Your task to perform on an android device: open app "Adobe Express: Graphic Design" Image 0: 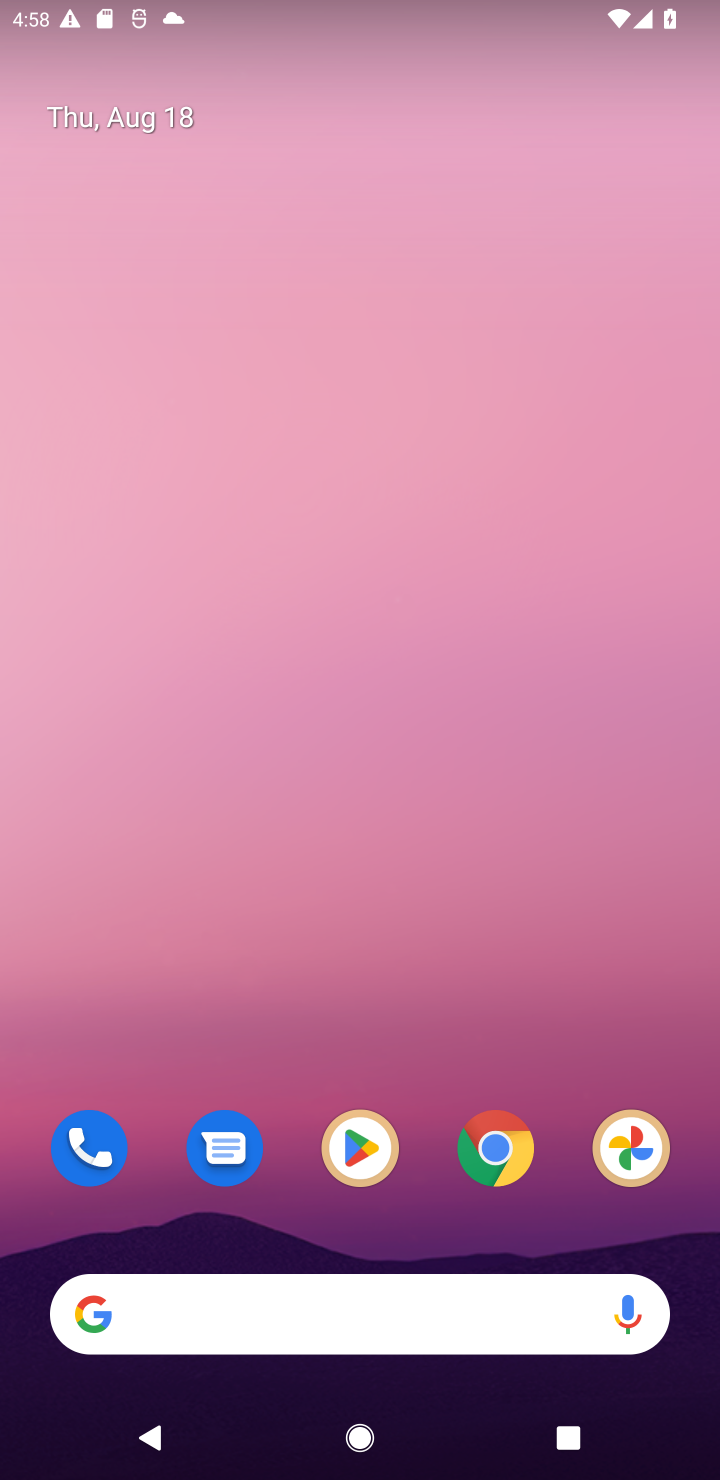
Step 0: drag from (494, 1164) to (394, 23)
Your task to perform on an android device: open app "Adobe Express: Graphic Design" Image 1: 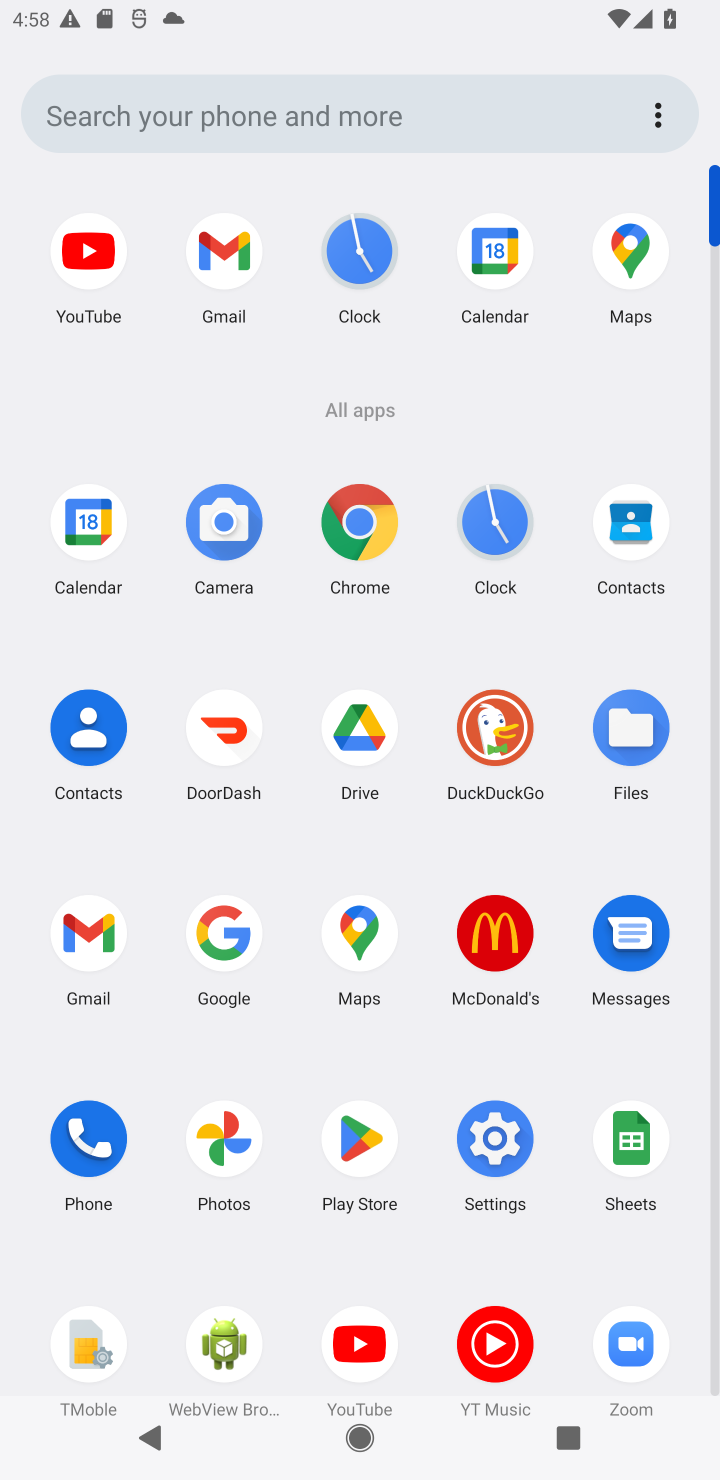
Step 1: click (370, 1145)
Your task to perform on an android device: open app "Adobe Express: Graphic Design" Image 2: 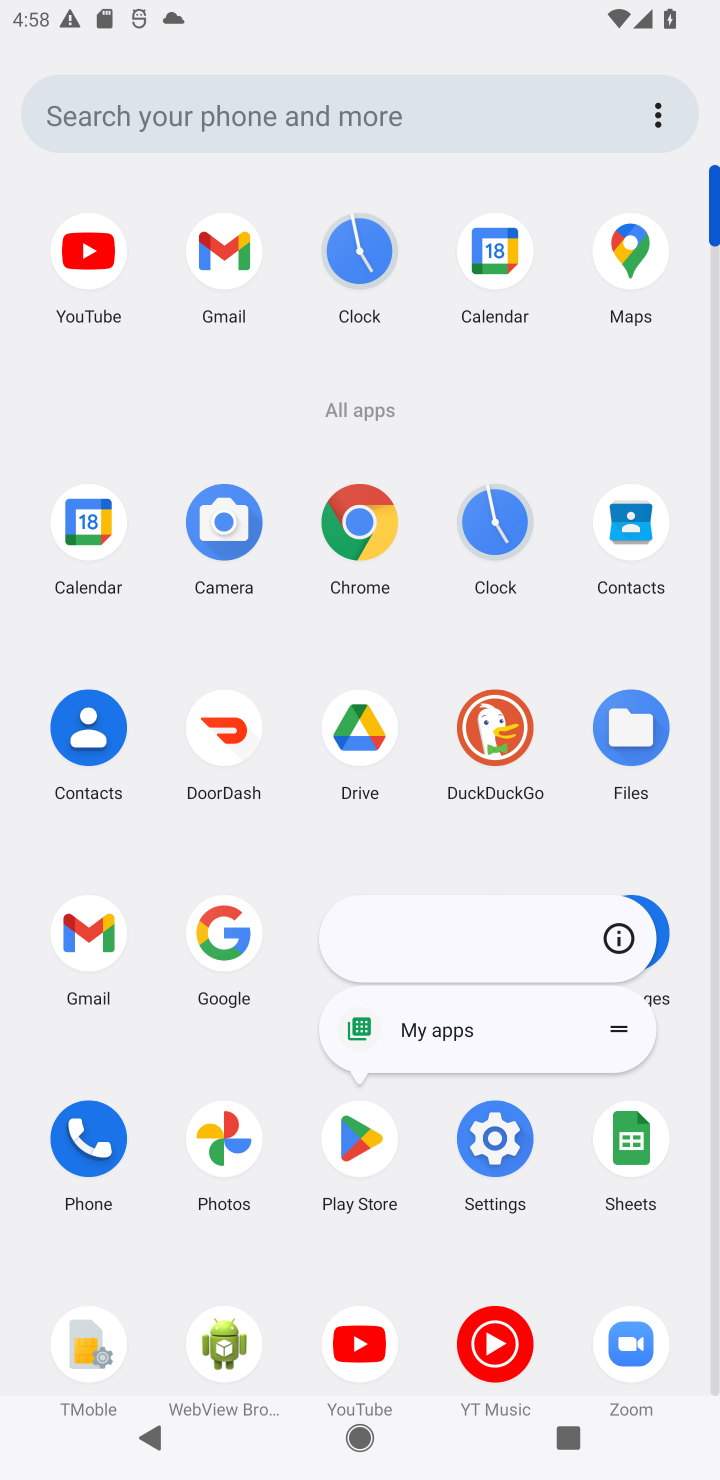
Step 2: click (373, 1136)
Your task to perform on an android device: open app "Adobe Express: Graphic Design" Image 3: 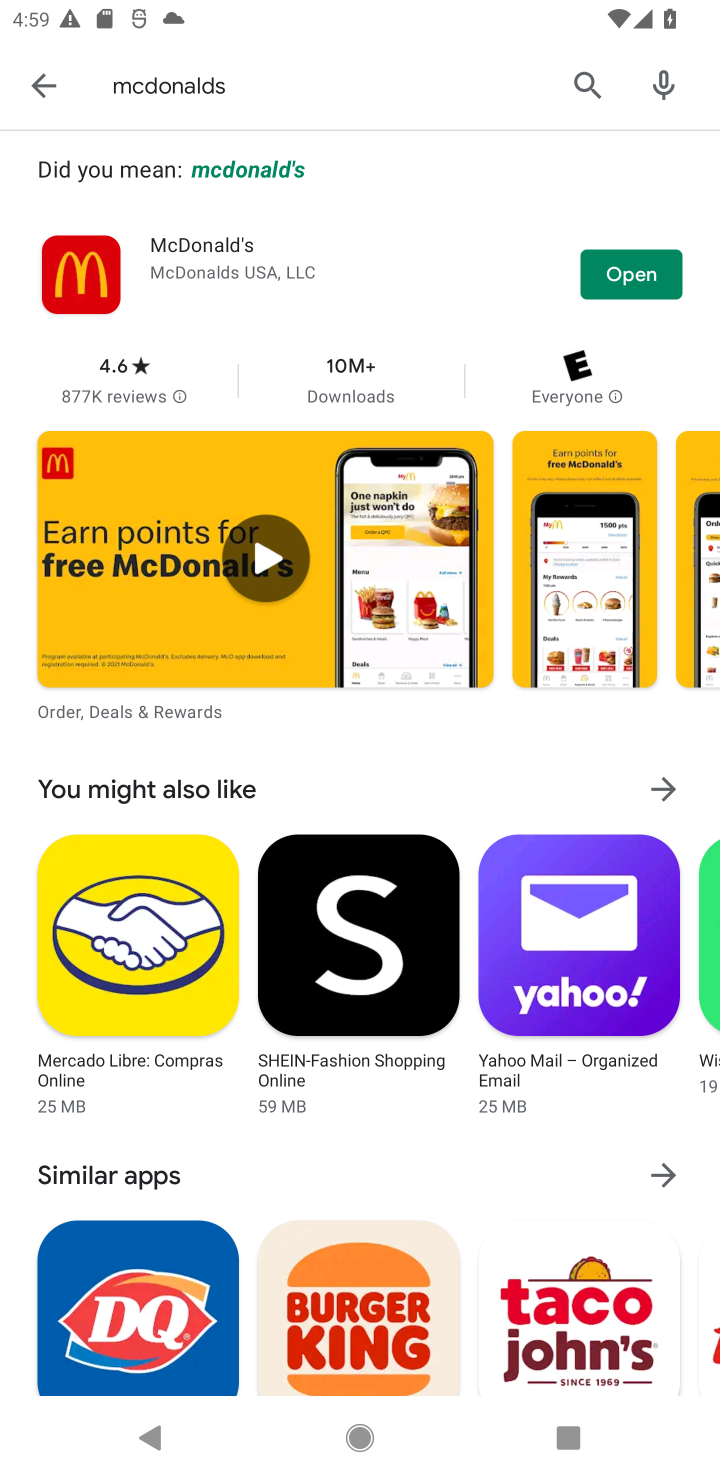
Step 3: click (53, 81)
Your task to perform on an android device: open app "Adobe Express: Graphic Design" Image 4: 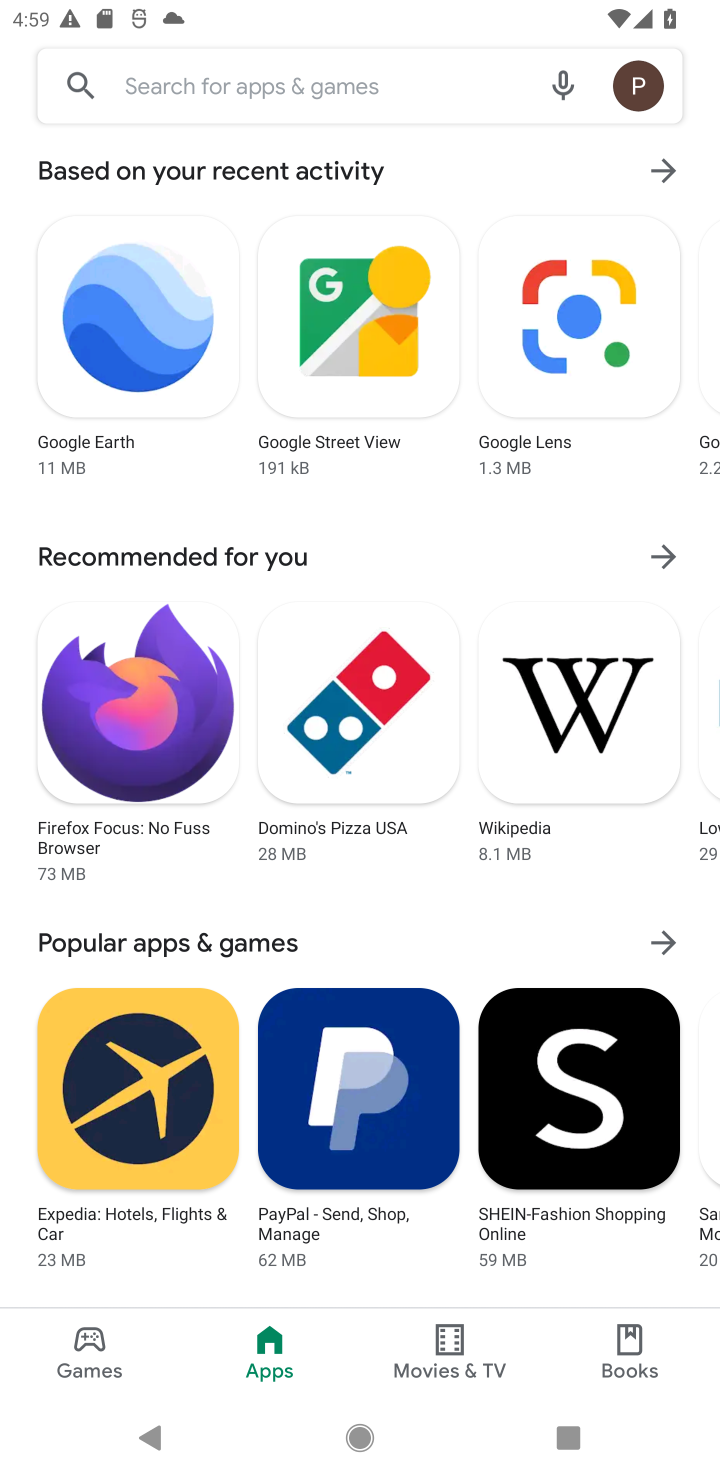
Step 4: click (254, 79)
Your task to perform on an android device: open app "Adobe Express: Graphic Design" Image 5: 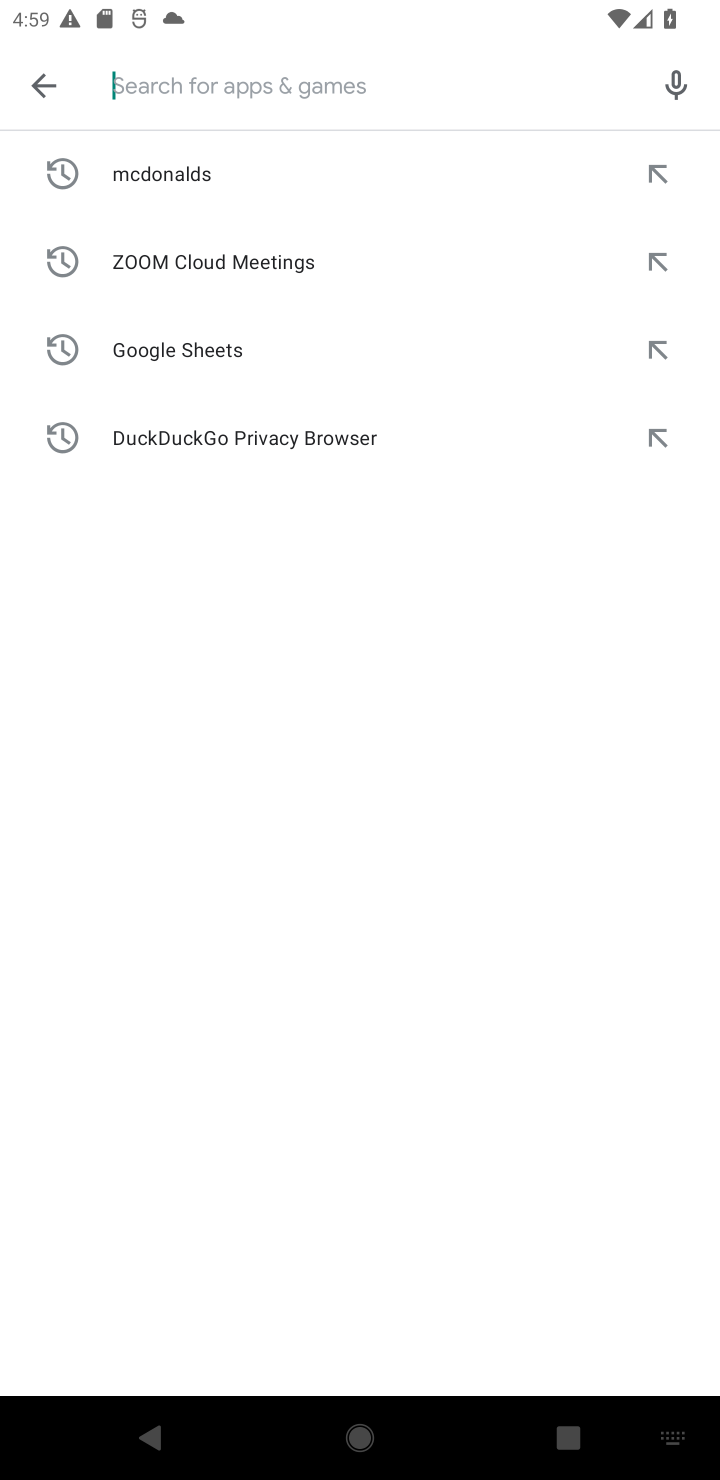
Step 5: type "Adobe Express: Graphic Design"
Your task to perform on an android device: open app "Adobe Express: Graphic Design" Image 6: 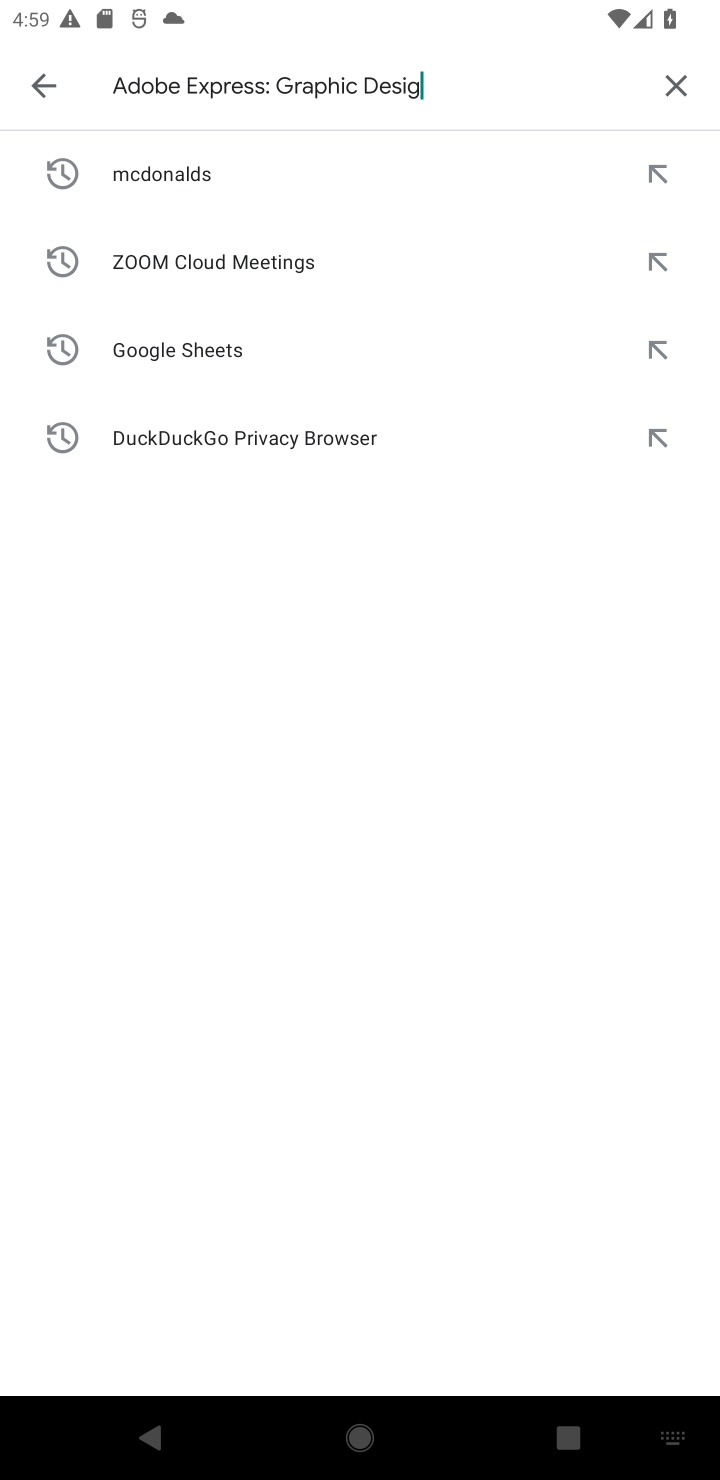
Step 6: press enter
Your task to perform on an android device: open app "Adobe Express: Graphic Design" Image 7: 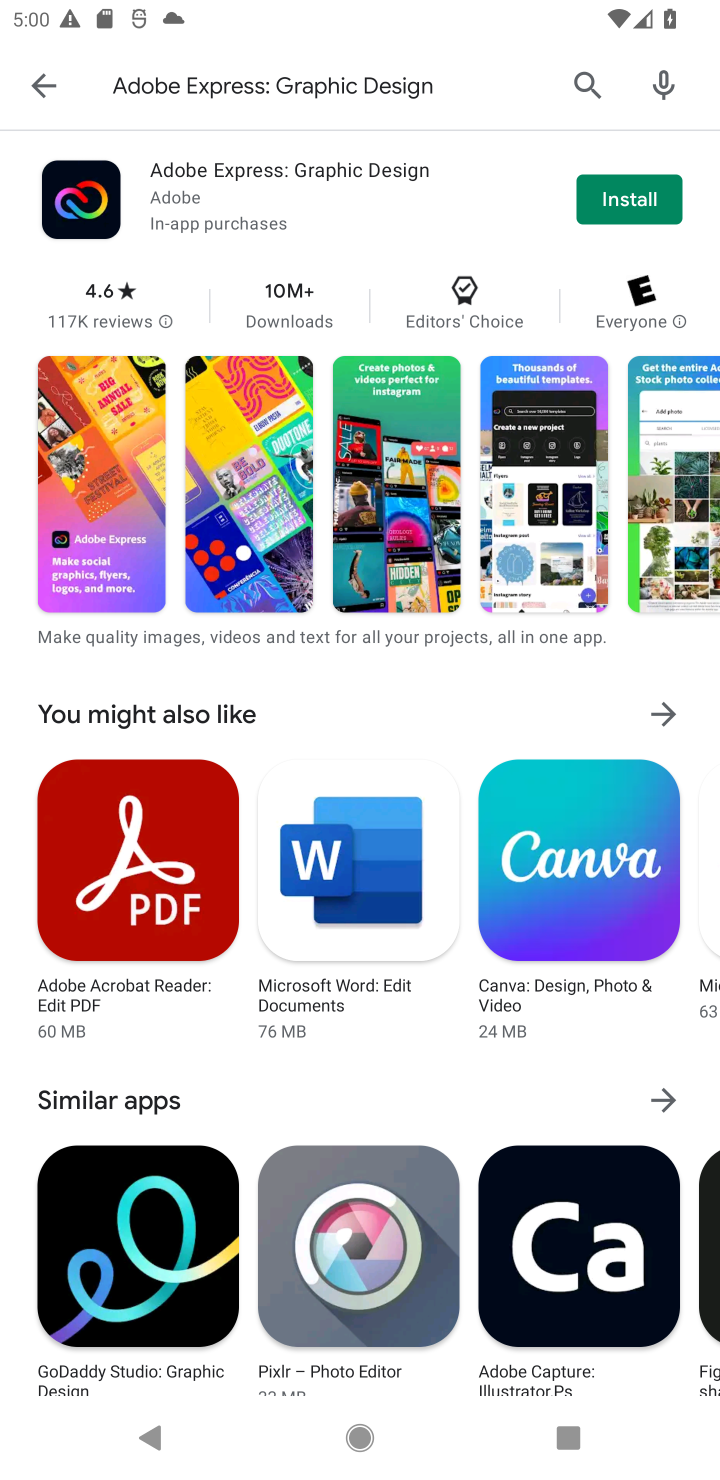
Step 7: task complete